Your task to perform on an android device: Open settings Image 0: 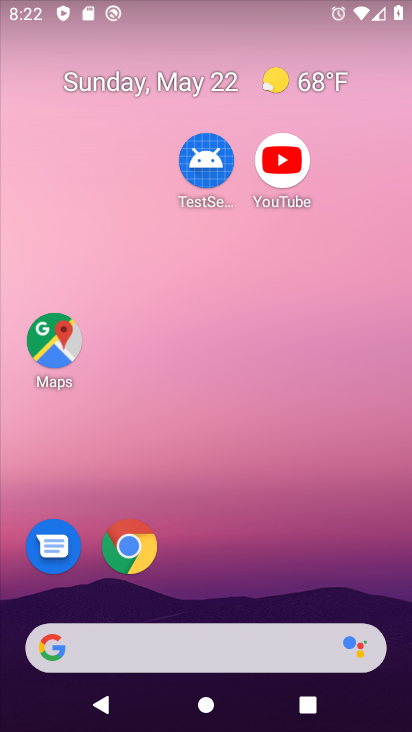
Step 0: drag from (252, 711) to (184, 256)
Your task to perform on an android device: Open settings Image 1: 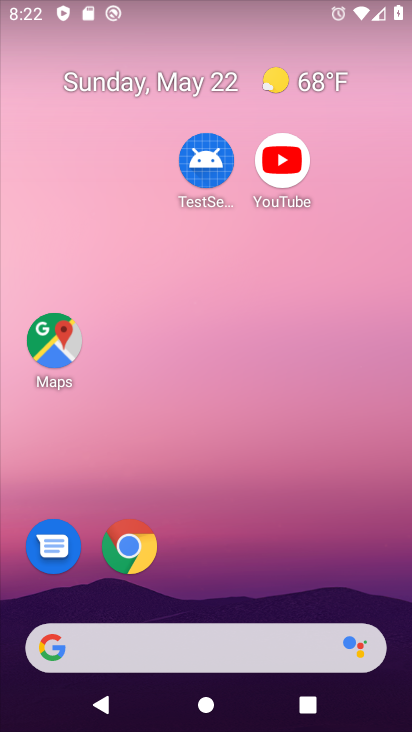
Step 1: drag from (260, 675) to (195, 188)
Your task to perform on an android device: Open settings Image 2: 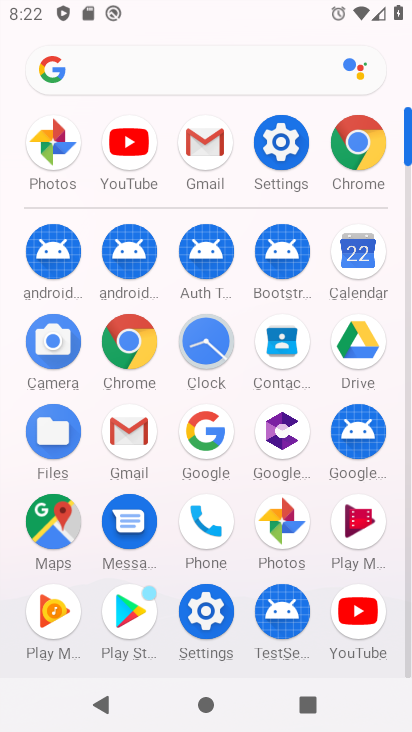
Step 2: click (278, 149)
Your task to perform on an android device: Open settings Image 3: 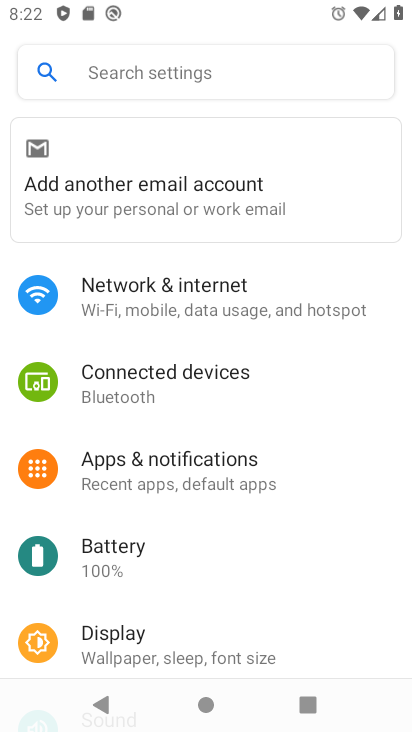
Step 3: task complete